Your task to perform on an android device: Is it going to rain tomorrow? Image 0: 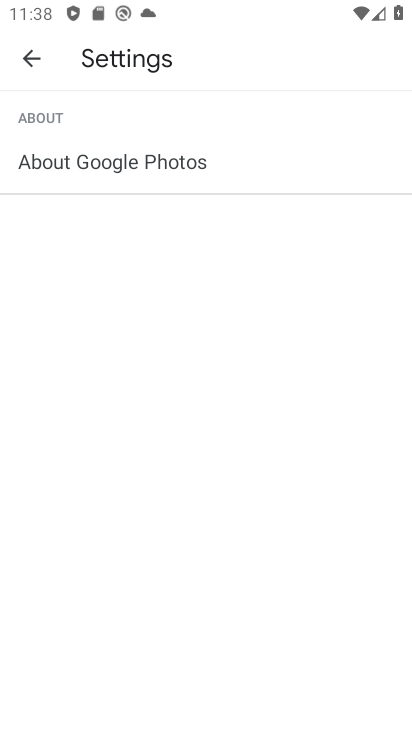
Step 0: press home button
Your task to perform on an android device: Is it going to rain tomorrow? Image 1: 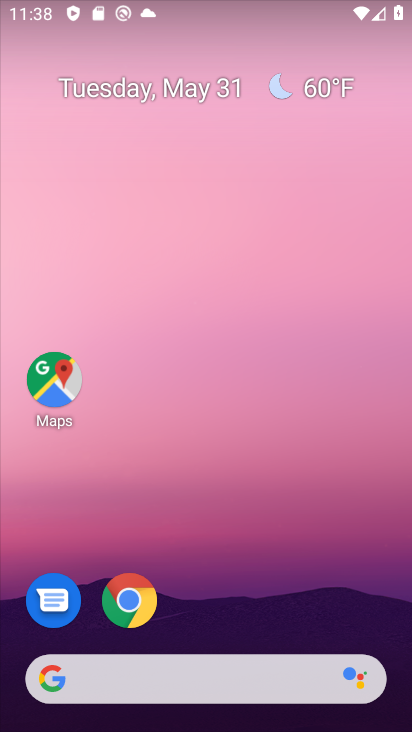
Step 1: click (227, 674)
Your task to perform on an android device: Is it going to rain tomorrow? Image 2: 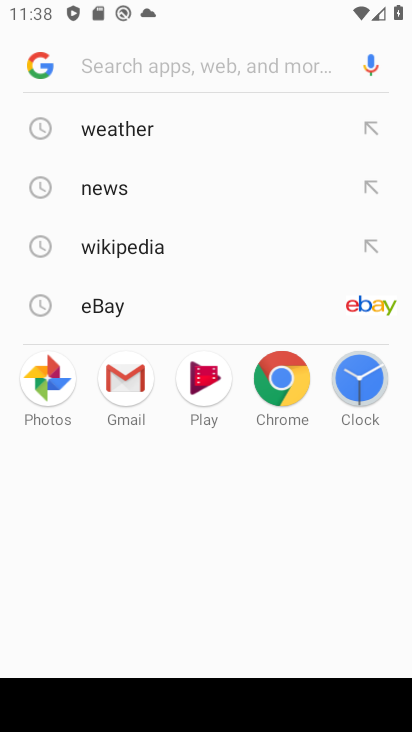
Step 2: click (136, 129)
Your task to perform on an android device: Is it going to rain tomorrow? Image 3: 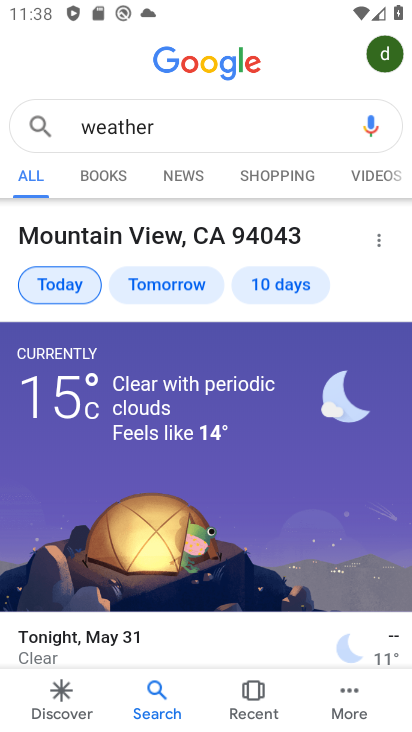
Step 3: click (184, 291)
Your task to perform on an android device: Is it going to rain tomorrow? Image 4: 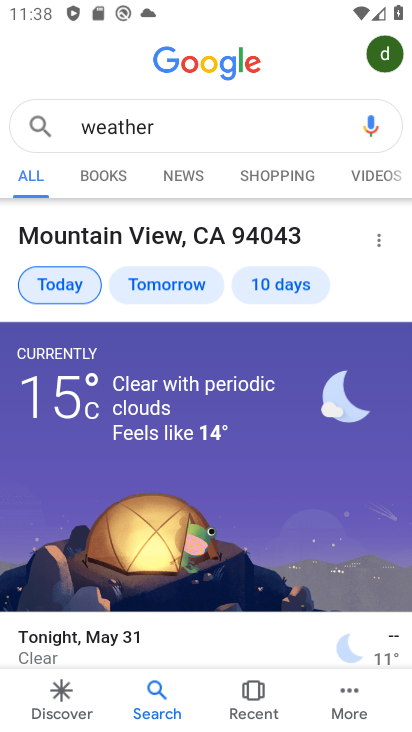
Step 4: click (165, 286)
Your task to perform on an android device: Is it going to rain tomorrow? Image 5: 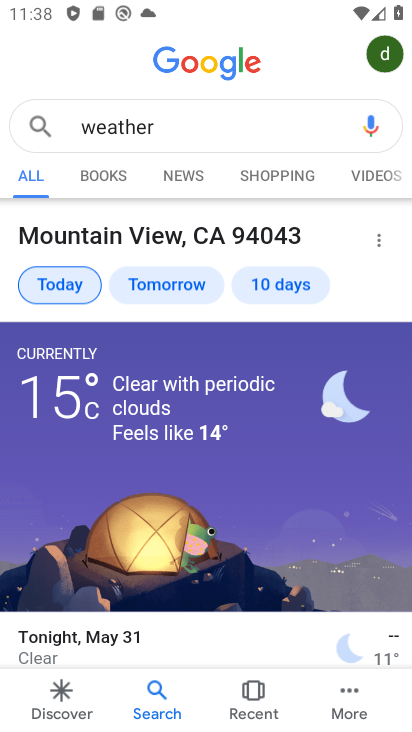
Step 5: click (179, 286)
Your task to perform on an android device: Is it going to rain tomorrow? Image 6: 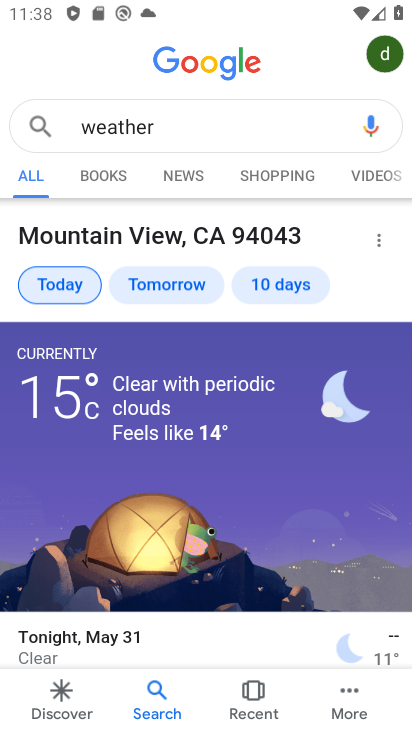
Step 6: click (179, 286)
Your task to perform on an android device: Is it going to rain tomorrow? Image 7: 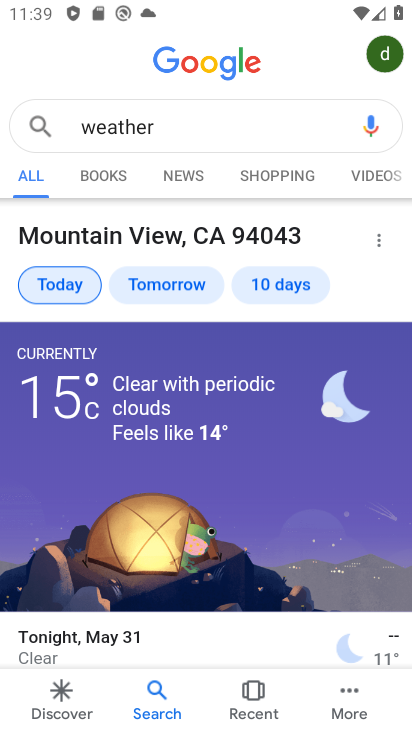
Step 7: click (179, 286)
Your task to perform on an android device: Is it going to rain tomorrow? Image 8: 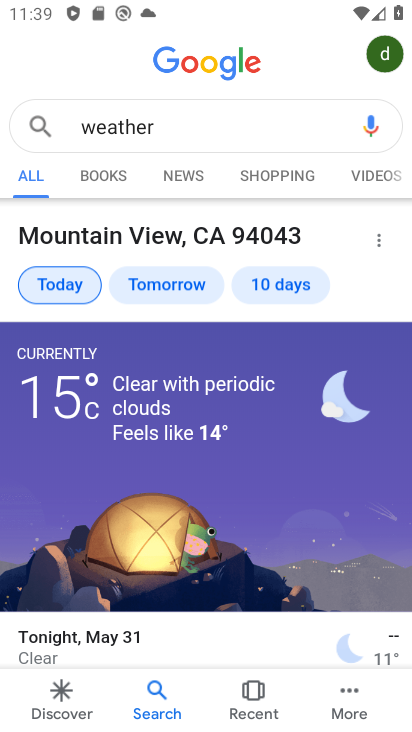
Step 8: task complete